Your task to perform on an android device: toggle airplane mode Image 0: 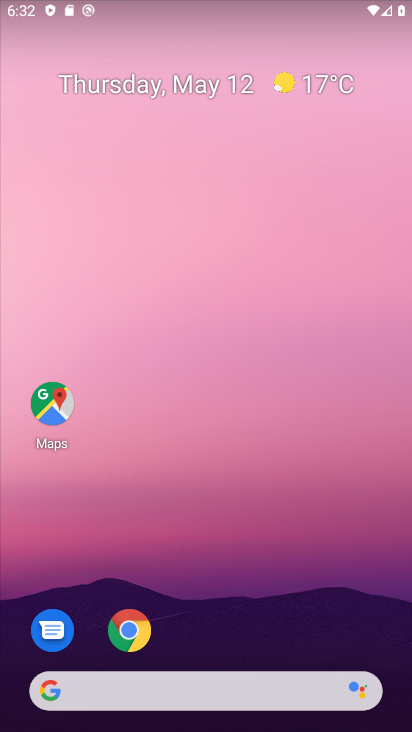
Step 0: drag from (231, 9) to (251, 435)
Your task to perform on an android device: toggle airplane mode Image 1: 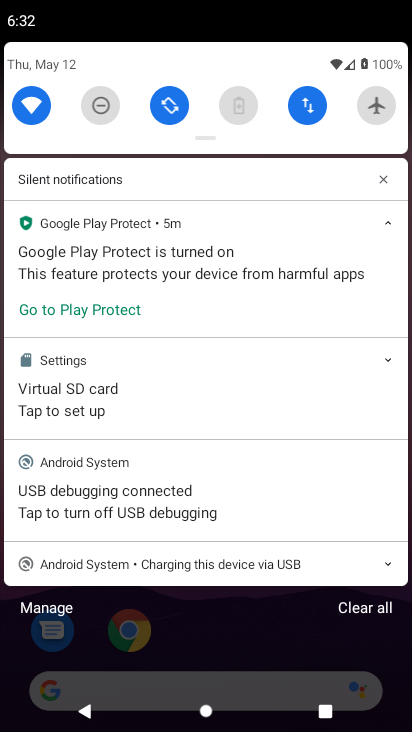
Step 1: click (356, 97)
Your task to perform on an android device: toggle airplane mode Image 2: 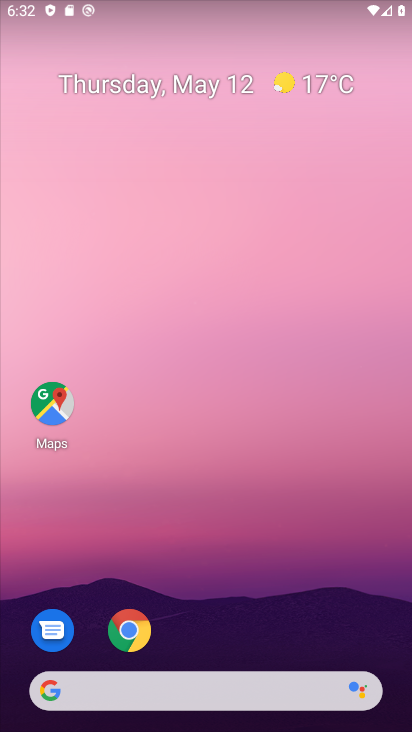
Step 2: drag from (278, 1) to (186, 592)
Your task to perform on an android device: toggle airplane mode Image 3: 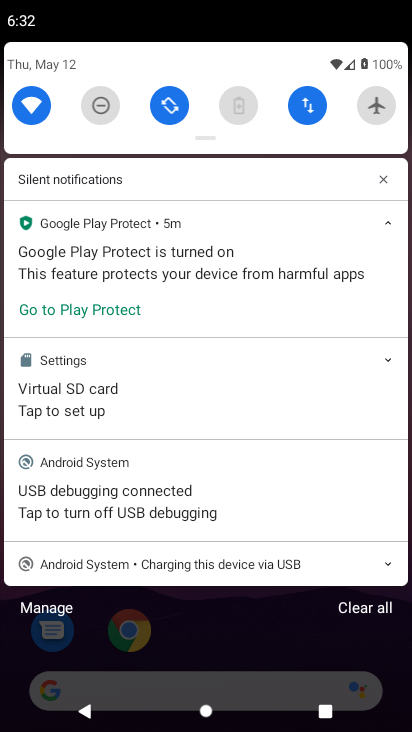
Step 3: click (366, 105)
Your task to perform on an android device: toggle airplane mode Image 4: 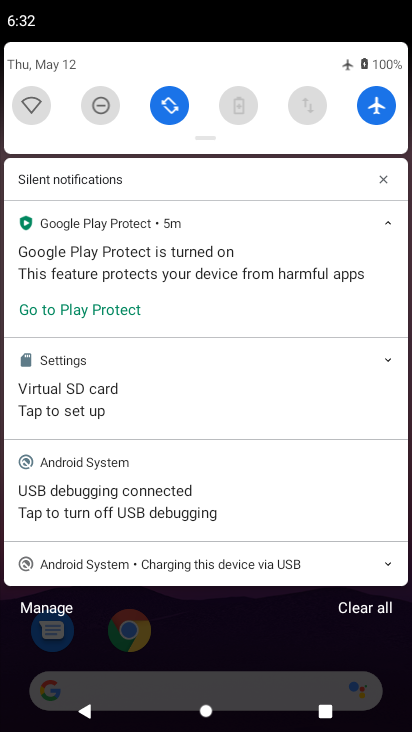
Step 4: task complete